Your task to perform on an android device: turn on notifications settings in the gmail app Image 0: 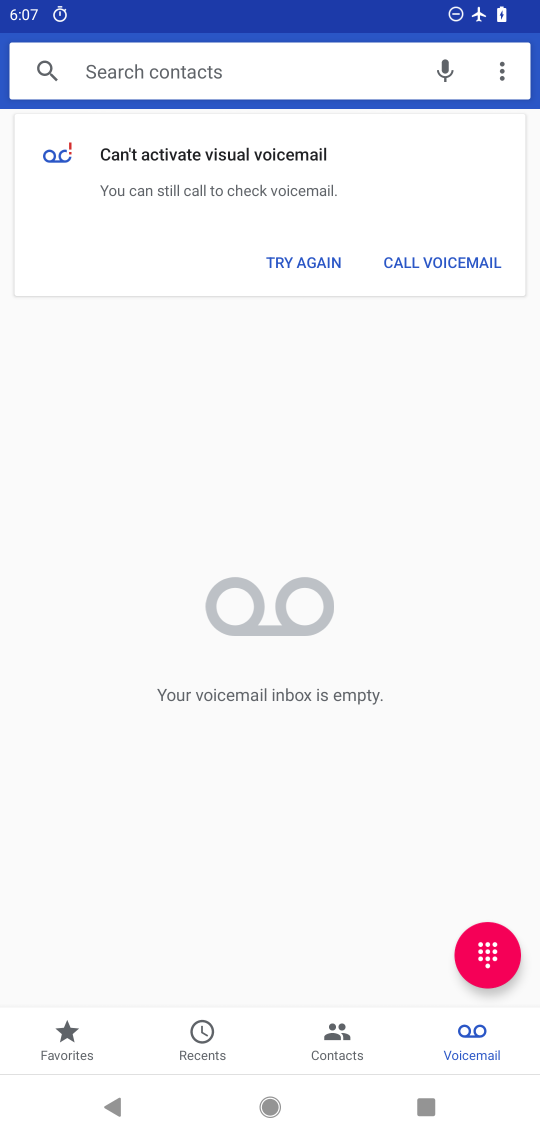
Step 0: press home button
Your task to perform on an android device: turn on notifications settings in the gmail app Image 1: 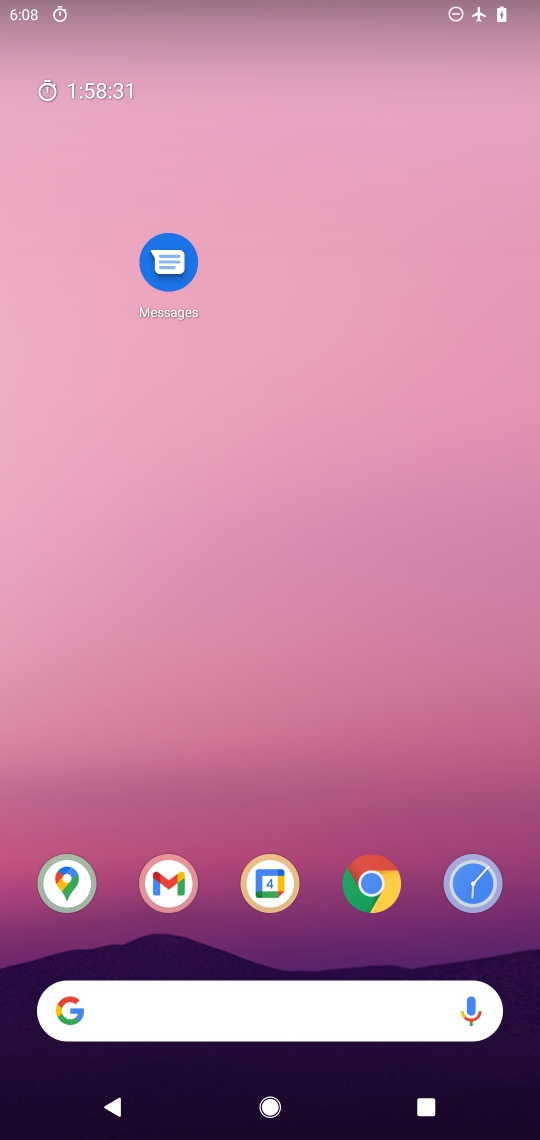
Step 1: drag from (293, 966) to (312, 148)
Your task to perform on an android device: turn on notifications settings in the gmail app Image 2: 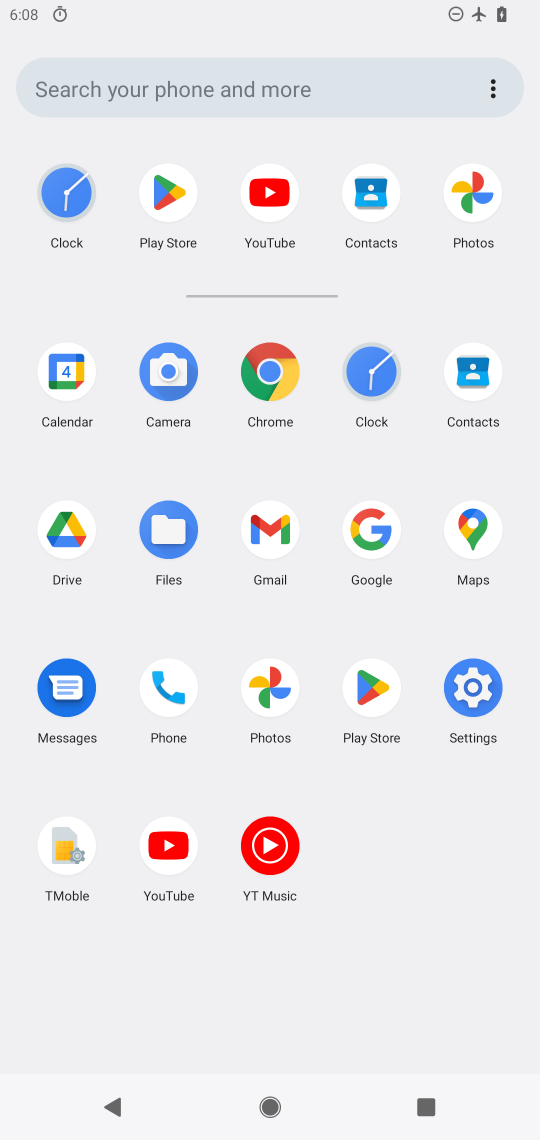
Step 2: click (273, 532)
Your task to perform on an android device: turn on notifications settings in the gmail app Image 3: 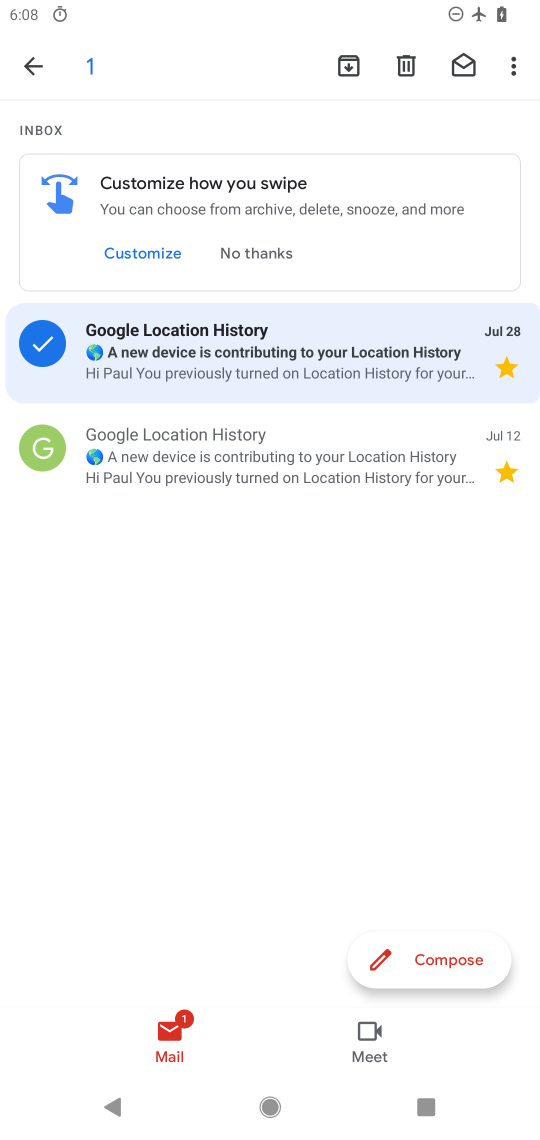
Step 3: click (34, 66)
Your task to perform on an android device: turn on notifications settings in the gmail app Image 4: 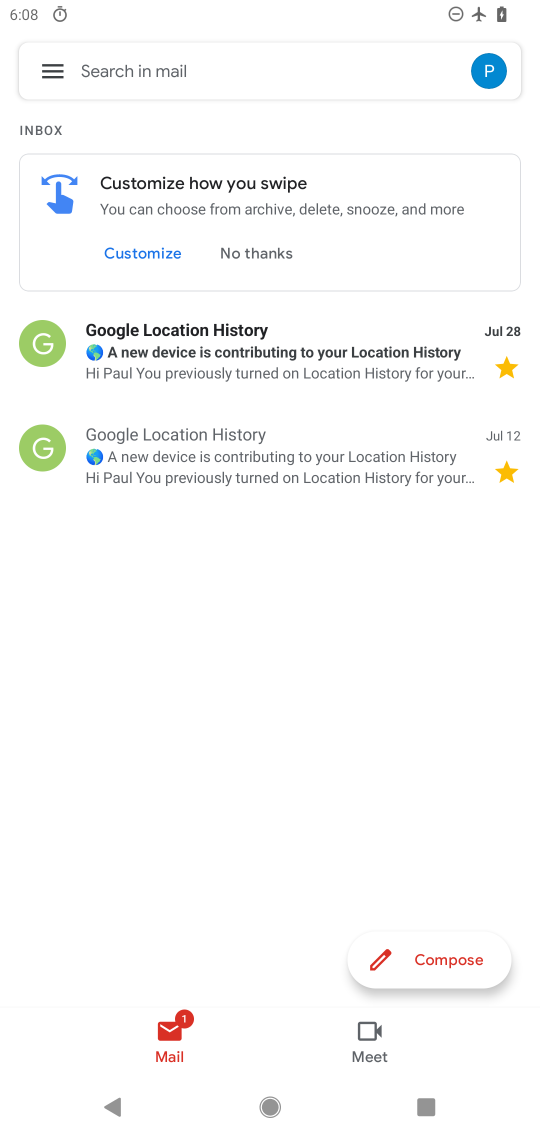
Step 4: click (54, 67)
Your task to perform on an android device: turn on notifications settings in the gmail app Image 5: 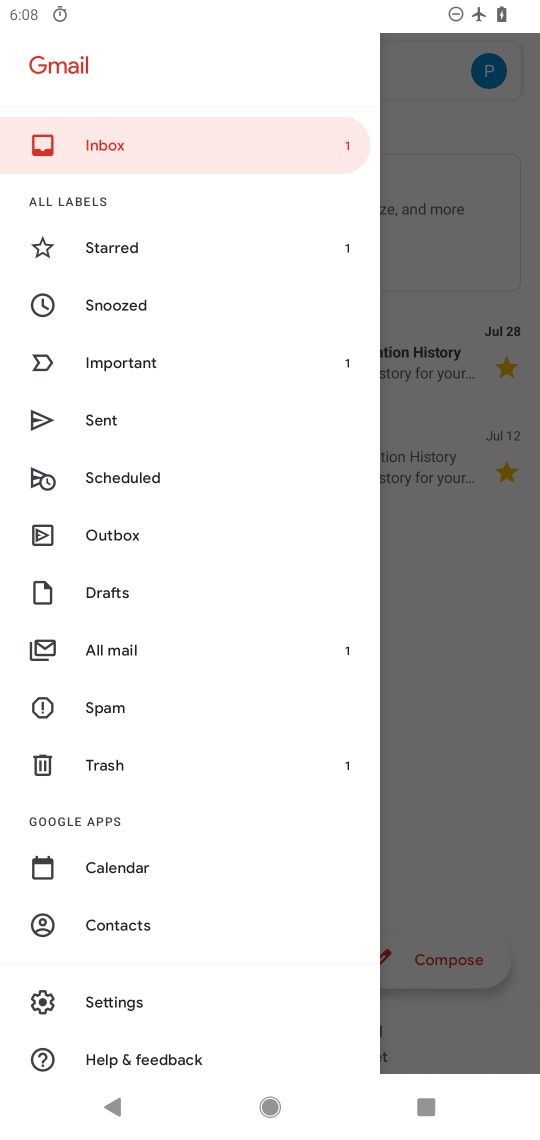
Step 5: click (119, 1002)
Your task to perform on an android device: turn on notifications settings in the gmail app Image 6: 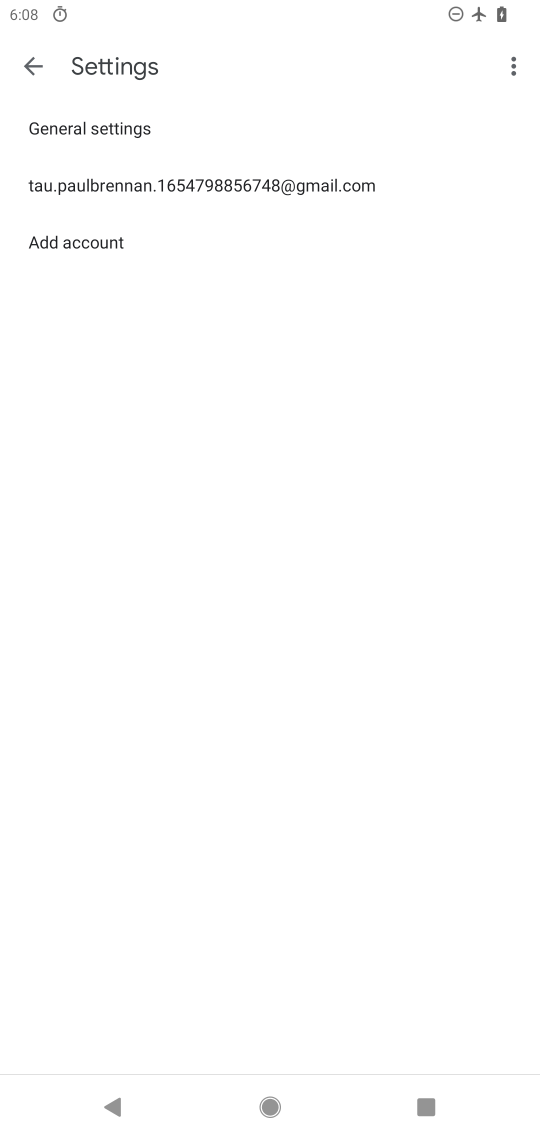
Step 6: click (189, 185)
Your task to perform on an android device: turn on notifications settings in the gmail app Image 7: 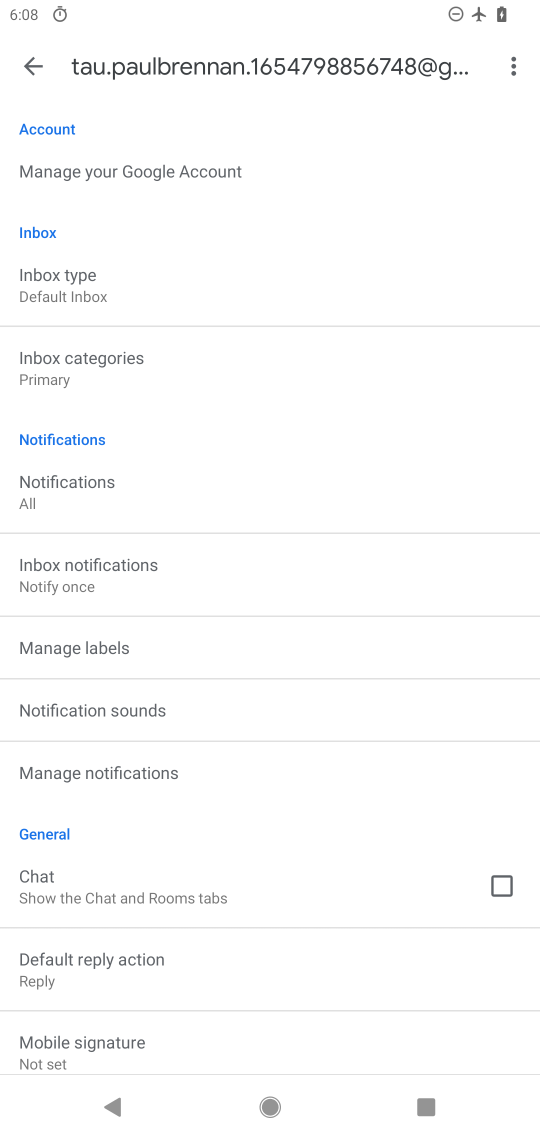
Step 7: task complete